Your task to perform on an android device: What's the weather going to be tomorrow? Image 0: 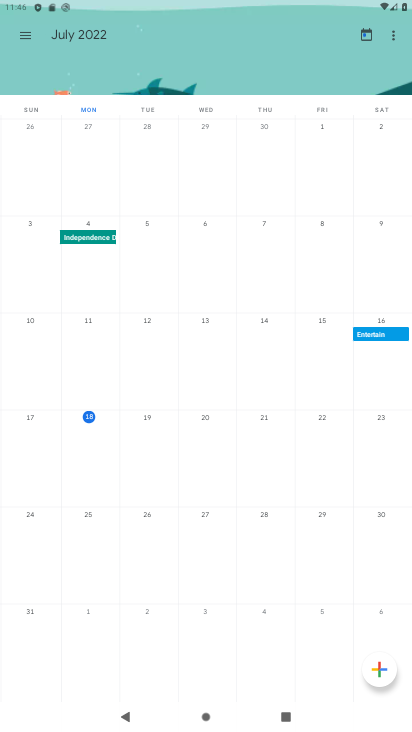
Step 0: press home button
Your task to perform on an android device: What's the weather going to be tomorrow? Image 1: 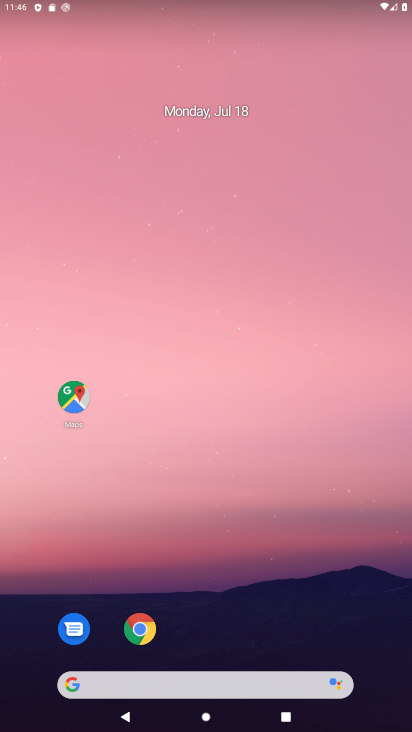
Step 1: click (148, 627)
Your task to perform on an android device: What's the weather going to be tomorrow? Image 2: 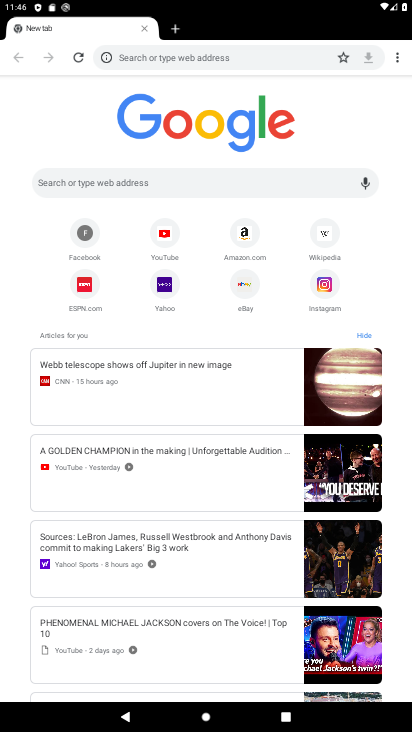
Step 2: click (226, 58)
Your task to perform on an android device: What's the weather going to be tomorrow? Image 3: 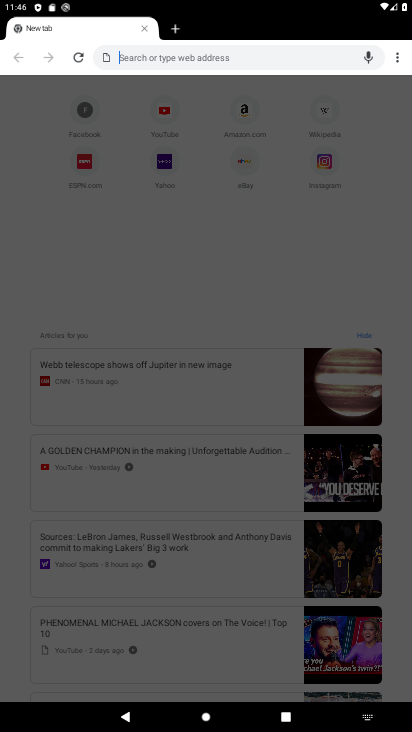
Step 3: type "What's the weather going to be tomorrow?"
Your task to perform on an android device: What's the weather going to be tomorrow? Image 4: 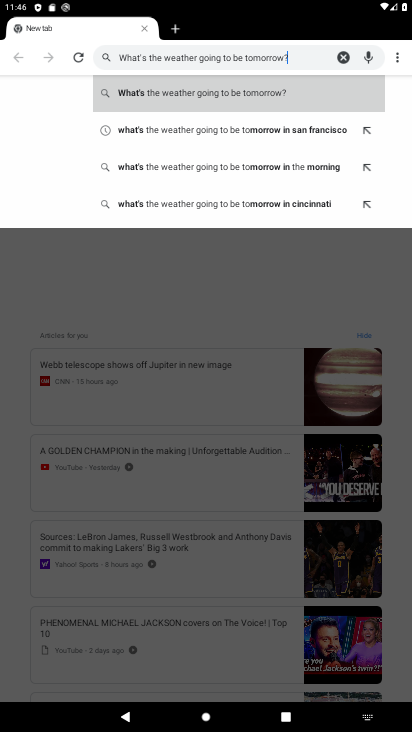
Step 4: click (263, 97)
Your task to perform on an android device: What's the weather going to be tomorrow? Image 5: 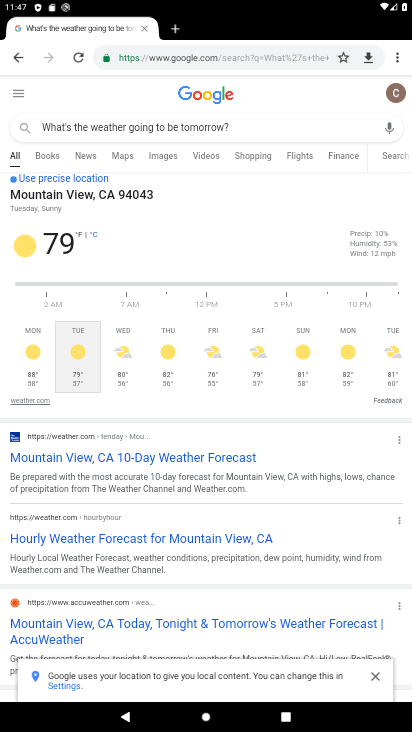
Step 5: task complete